Your task to perform on an android device: Go to Android settings Image 0: 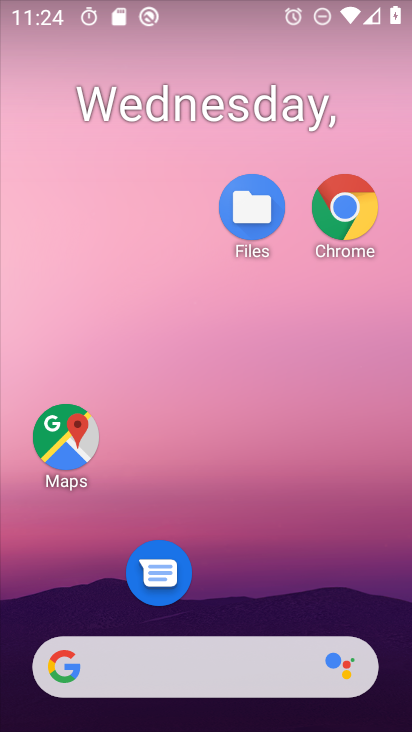
Step 0: drag from (262, 640) to (283, 161)
Your task to perform on an android device: Go to Android settings Image 1: 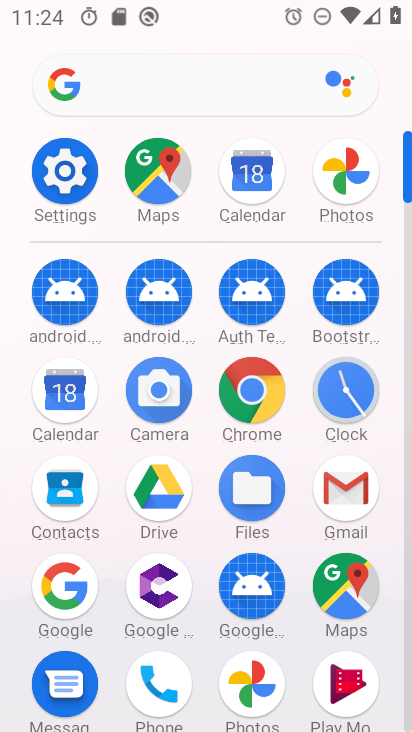
Step 1: click (86, 207)
Your task to perform on an android device: Go to Android settings Image 2: 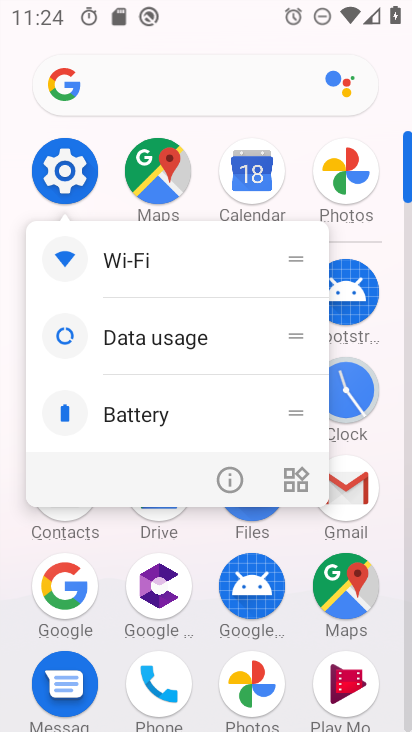
Step 2: click (76, 182)
Your task to perform on an android device: Go to Android settings Image 3: 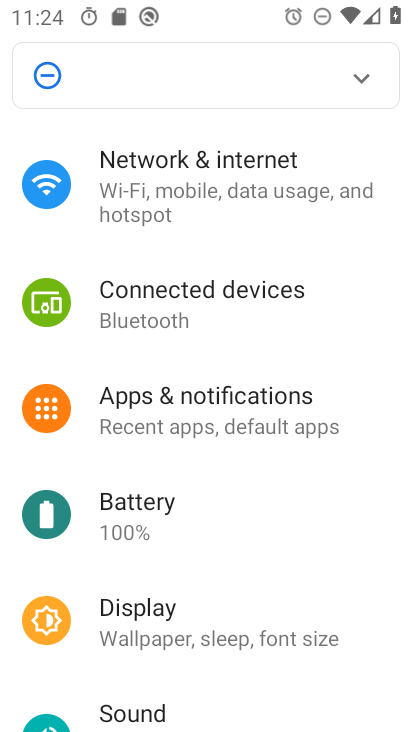
Step 3: drag from (195, 578) to (235, 169)
Your task to perform on an android device: Go to Android settings Image 4: 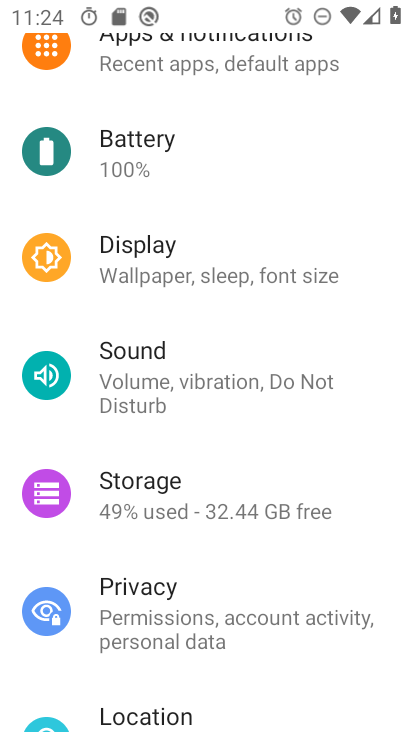
Step 4: drag from (210, 581) to (252, 190)
Your task to perform on an android device: Go to Android settings Image 5: 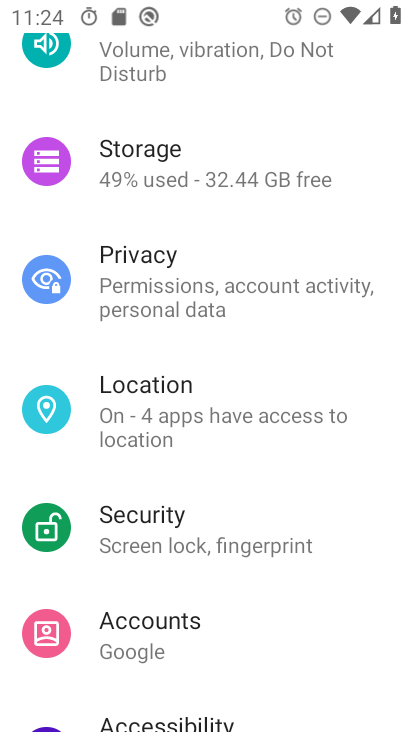
Step 5: drag from (190, 603) to (239, 196)
Your task to perform on an android device: Go to Android settings Image 6: 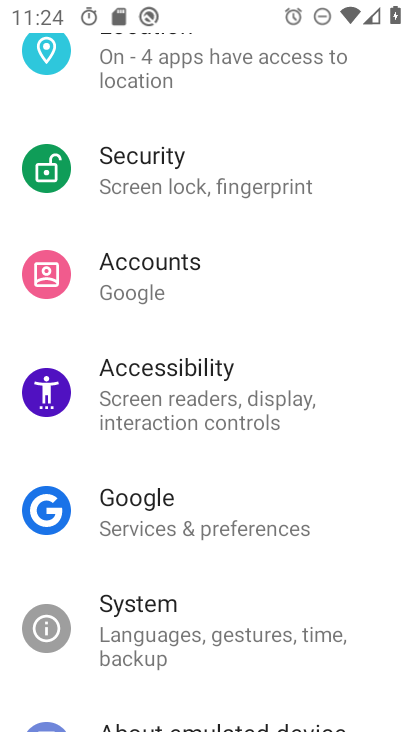
Step 6: drag from (168, 596) to (234, 249)
Your task to perform on an android device: Go to Android settings Image 7: 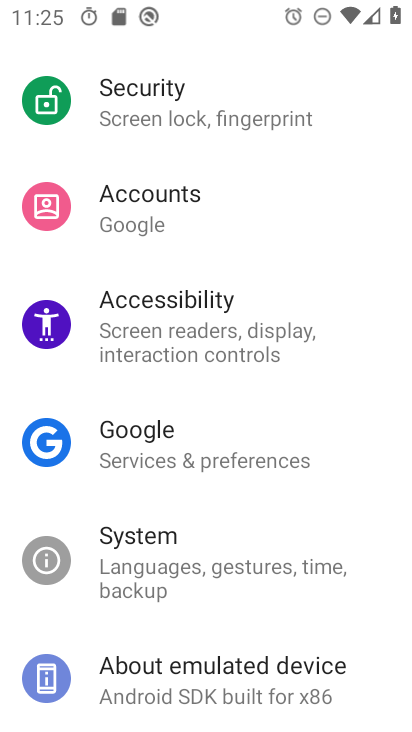
Step 7: click (237, 669)
Your task to perform on an android device: Go to Android settings Image 8: 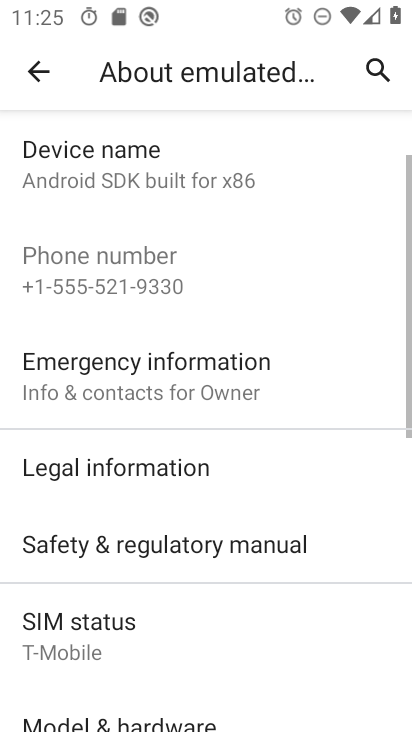
Step 8: drag from (238, 539) to (269, 304)
Your task to perform on an android device: Go to Android settings Image 9: 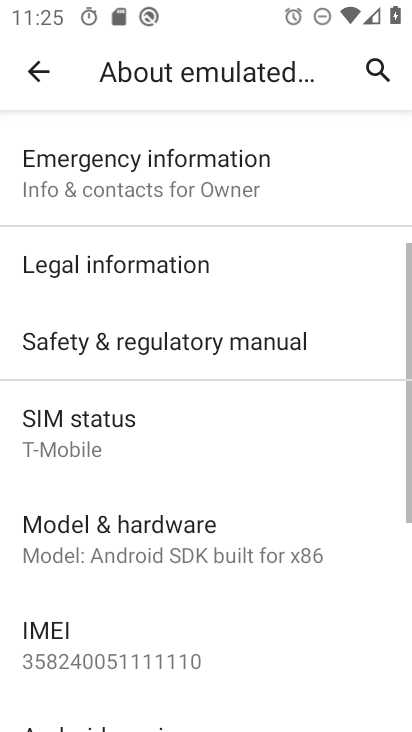
Step 9: drag from (218, 324) to (228, 694)
Your task to perform on an android device: Go to Android settings Image 10: 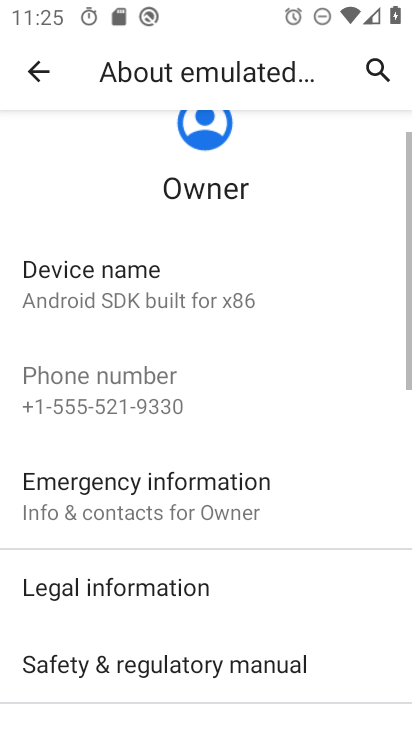
Step 10: drag from (205, 567) to (266, 171)
Your task to perform on an android device: Go to Android settings Image 11: 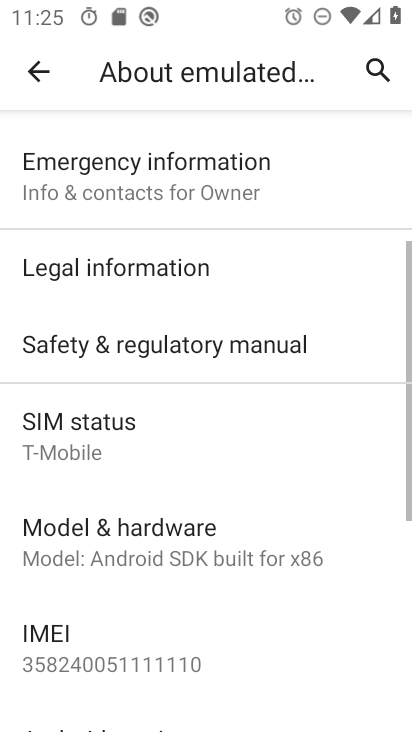
Step 11: drag from (191, 547) to (232, 265)
Your task to perform on an android device: Go to Android settings Image 12: 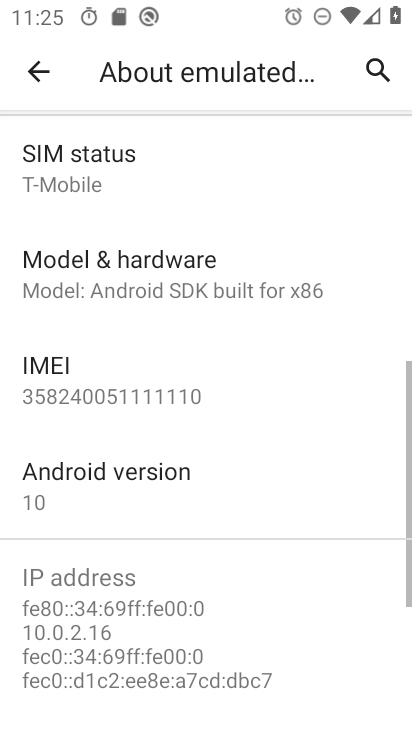
Step 12: click (149, 492)
Your task to perform on an android device: Go to Android settings Image 13: 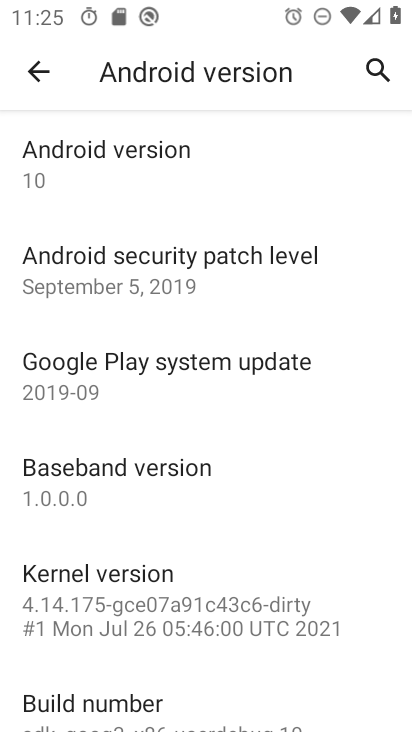
Step 13: task complete